Your task to perform on an android device: check data usage Image 0: 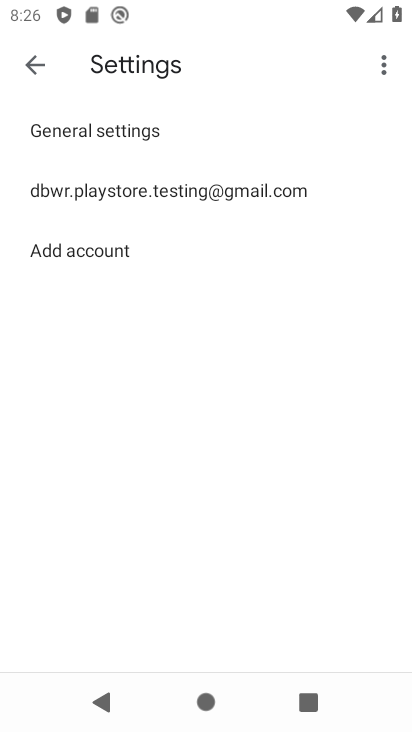
Step 0: press home button
Your task to perform on an android device: check data usage Image 1: 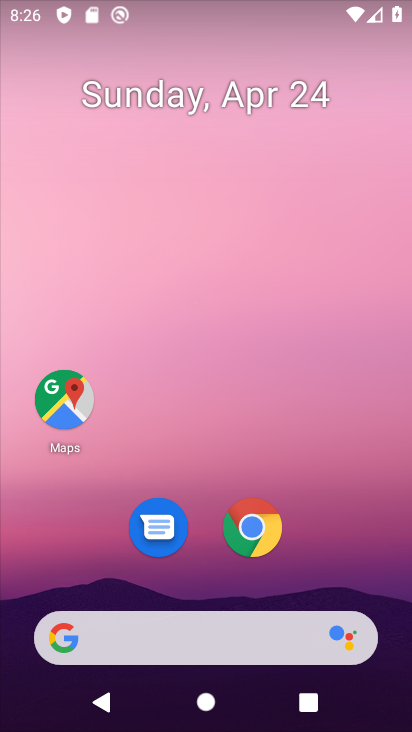
Step 1: drag from (362, 567) to (329, 37)
Your task to perform on an android device: check data usage Image 2: 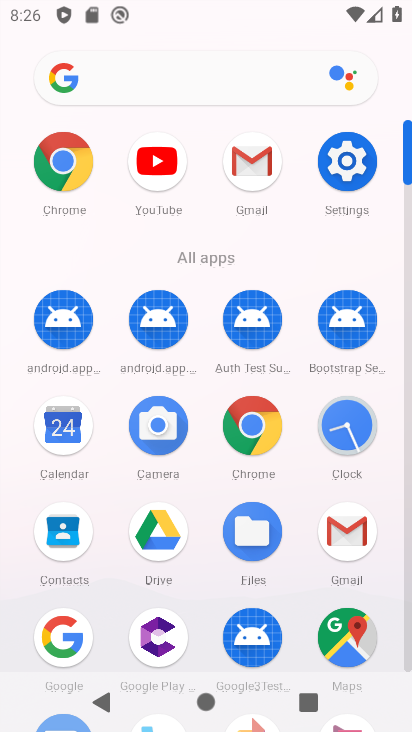
Step 2: click (349, 163)
Your task to perform on an android device: check data usage Image 3: 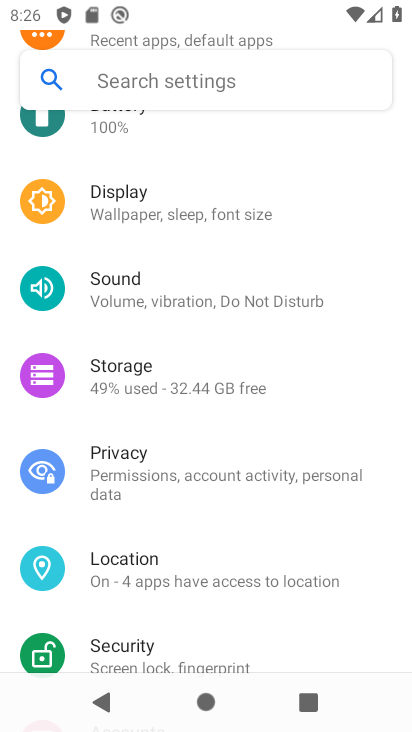
Step 3: drag from (324, 219) to (340, 549)
Your task to perform on an android device: check data usage Image 4: 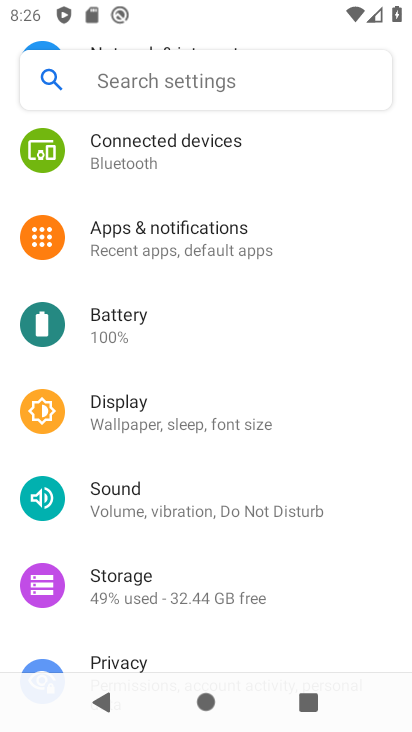
Step 4: drag from (324, 188) to (331, 551)
Your task to perform on an android device: check data usage Image 5: 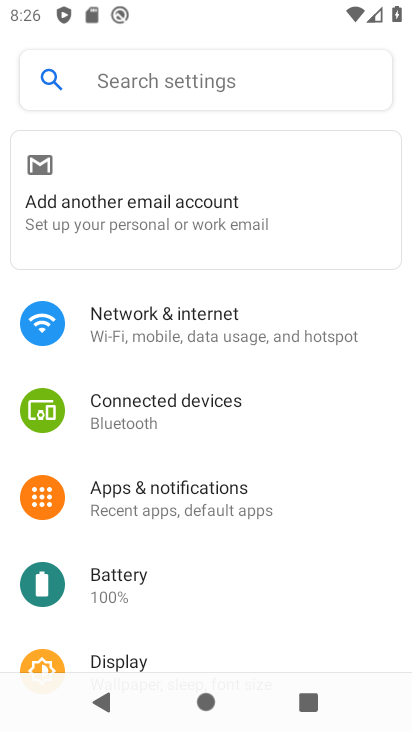
Step 5: click (150, 327)
Your task to perform on an android device: check data usage Image 6: 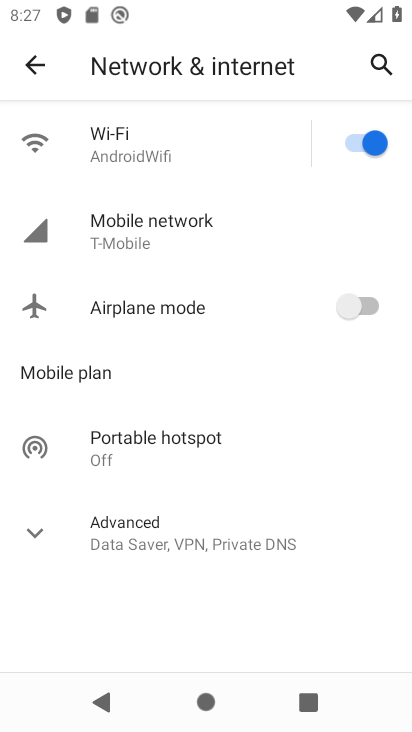
Step 6: click (116, 234)
Your task to perform on an android device: check data usage Image 7: 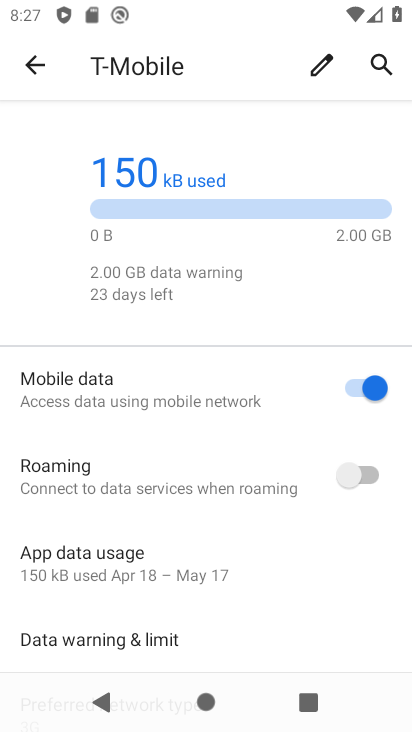
Step 7: drag from (177, 510) to (165, 253)
Your task to perform on an android device: check data usage Image 8: 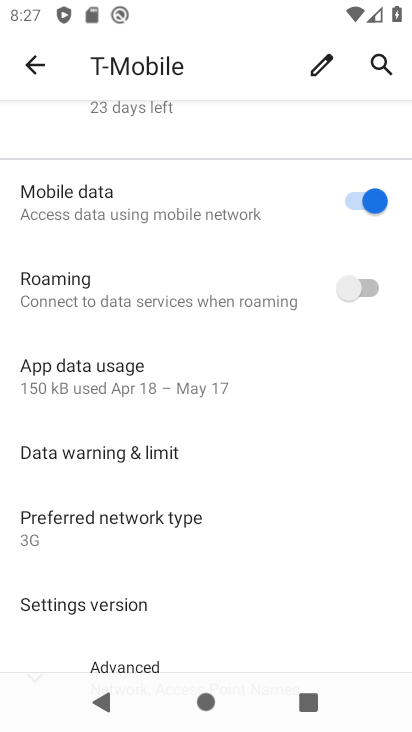
Step 8: click (84, 377)
Your task to perform on an android device: check data usage Image 9: 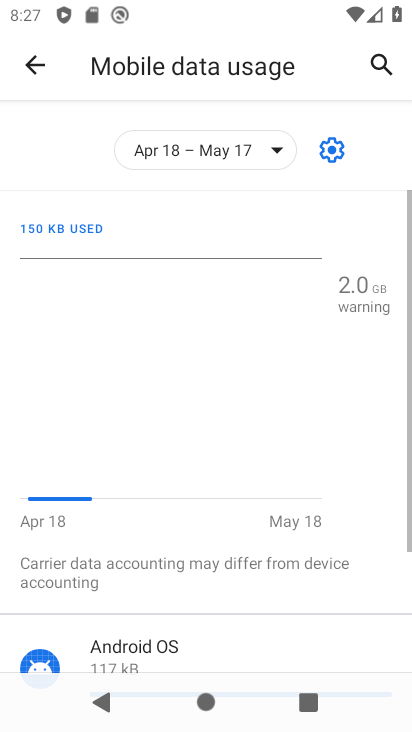
Step 9: task complete